Your task to perform on an android device: Open the map Image 0: 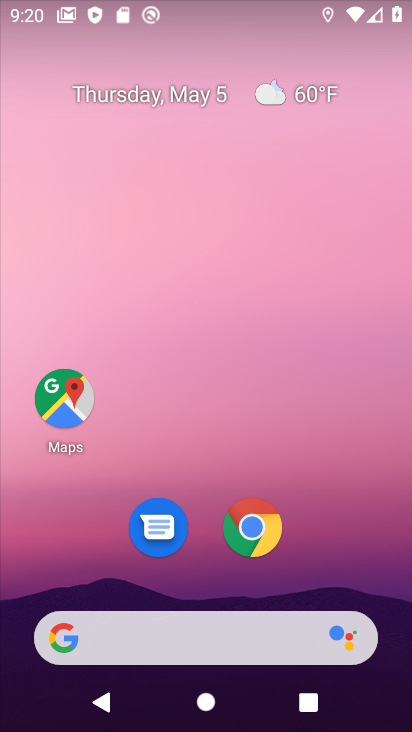
Step 0: click (63, 407)
Your task to perform on an android device: Open the map Image 1: 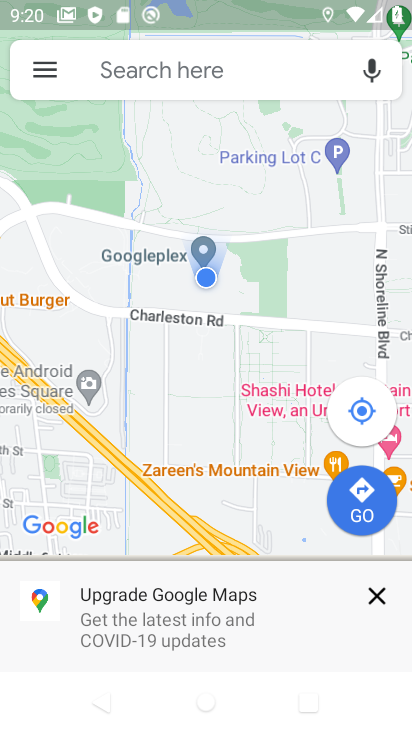
Step 1: click (378, 597)
Your task to perform on an android device: Open the map Image 2: 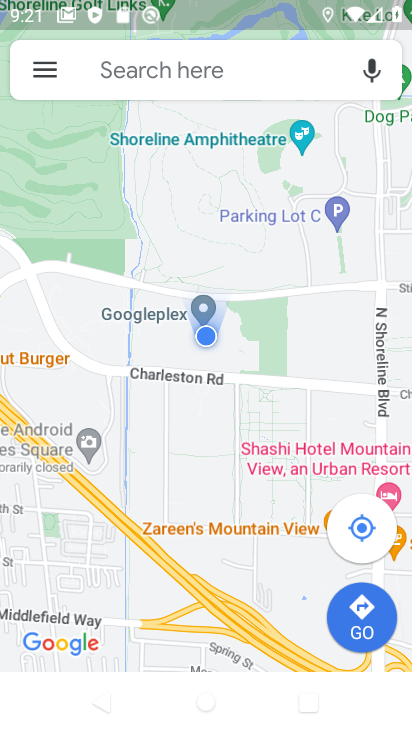
Step 2: task complete